Your task to perform on an android device: Clear the cart on newegg.com. Search for bose soundlink on newegg.com, select the first entry, add it to the cart, then select checkout. Image 0: 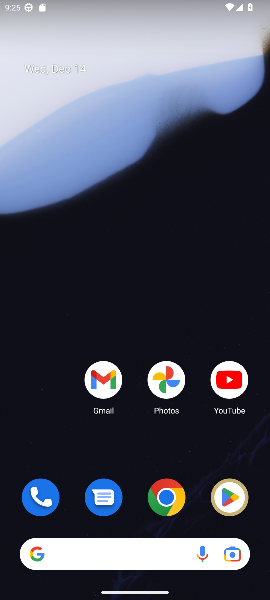
Step 0: click (166, 510)
Your task to perform on an android device: Clear the cart on newegg.com. Search for bose soundlink on newegg.com, select the first entry, add it to the cart, then select checkout. Image 1: 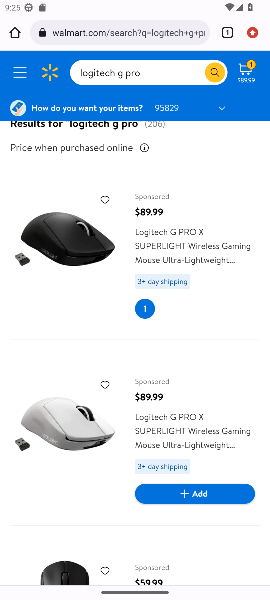
Step 1: click (91, 32)
Your task to perform on an android device: Clear the cart on newegg.com. Search for bose soundlink on newegg.com, select the first entry, add it to the cart, then select checkout. Image 2: 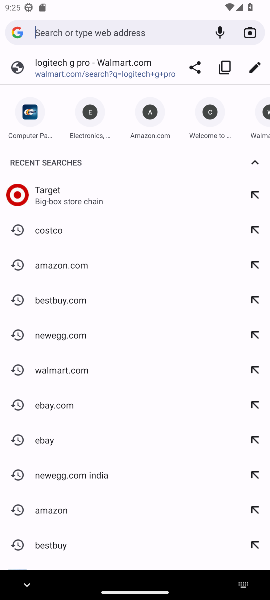
Step 2: type "newegg.com"
Your task to perform on an android device: Clear the cart on newegg.com. Search for bose soundlink on newegg.com, select the first entry, add it to the cart, then select checkout. Image 3: 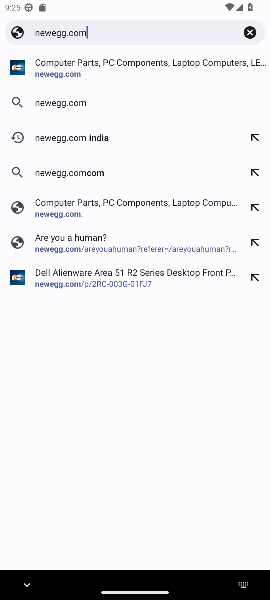
Step 3: press enter
Your task to perform on an android device: Clear the cart on newegg.com. Search for bose soundlink on newegg.com, select the first entry, add it to the cart, then select checkout. Image 4: 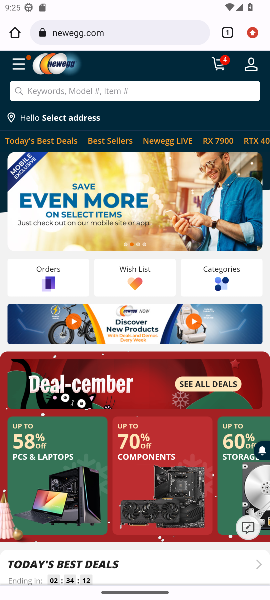
Step 4: click (221, 69)
Your task to perform on an android device: Clear the cart on newegg.com. Search for bose soundlink on newegg.com, select the first entry, add it to the cart, then select checkout. Image 5: 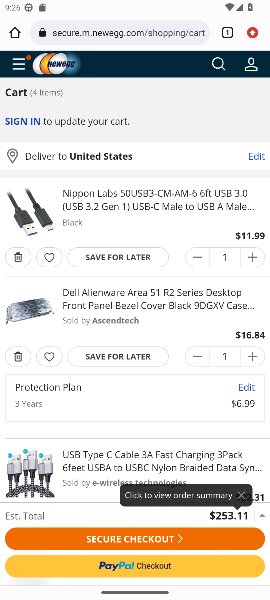
Step 5: click (200, 261)
Your task to perform on an android device: Clear the cart on newegg.com. Search for bose soundlink on newegg.com, select the first entry, add it to the cart, then select checkout. Image 6: 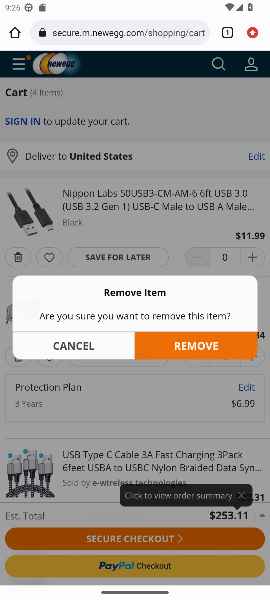
Step 6: click (199, 340)
Your task to perform on an android device: Clear the cart on newegg.com. Search for bose soundlink on newegg.com, select the first entry, add it to the cart, then select checkout. Image 7: 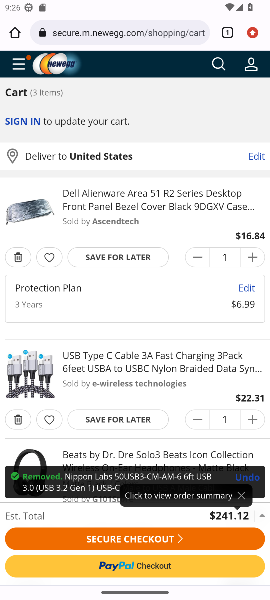
Step 7: click (196, 263)
Your task to perform on an android device: Clear the cart on newegg.com. Search for bose soundlink on newegg.com, select the first entry, add it to the cart, then select checkout. Image 8: 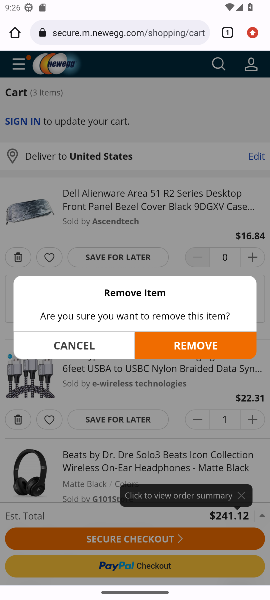
Step 8: click (192, 343)
Your task to perform on an android device: Clear the cart on newegg.com. Search for bose soundlink on newegg.com, select the first entry, add it to the cart, then select checkout. Image 9: 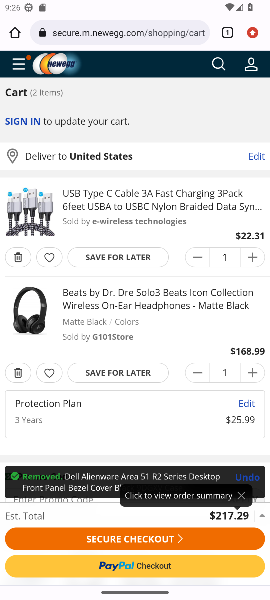
Step 9: click (200, 262)
Your task to perform on an android device: Clear the cart on newegg.com. Search for bose soundlink on newegg.com, select the first entry, add it to the cart, then select checkout. Image 10: 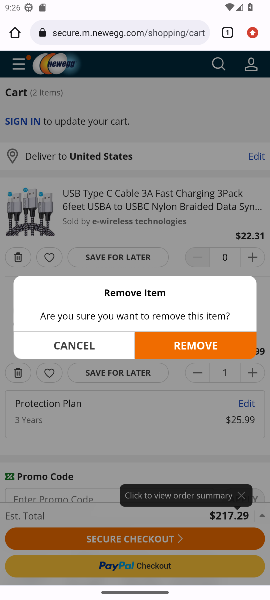
Step 10: click (200, 342)
Your task to perform on an android device: Clear the cart on newegg.com. Search for bose soundlink on newegg.com, select the first entry, add it to the cart, then select checkout. Image 11: 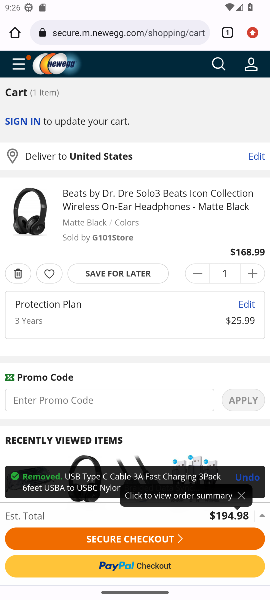
Step 11: click (198, 277)
Your task to perform on an android device: Clear the cart on newegg.com. Search for bose soundlink on newegg.com, select the first entry, add it to the cart, then select checkout. Image 12: 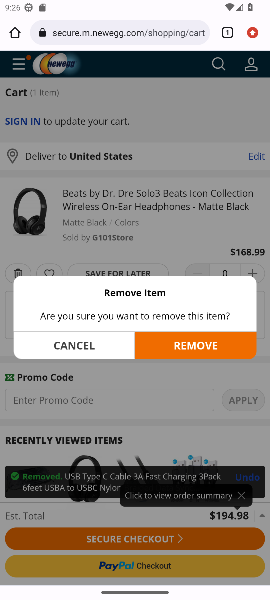
Step 12: click (179, 350)
Your task to perform on an android device: Clear the cart on newegg.com. Search for bose soundlink on newegg.com, select the first entry, add it to the cart, then select checkout. Image 13: 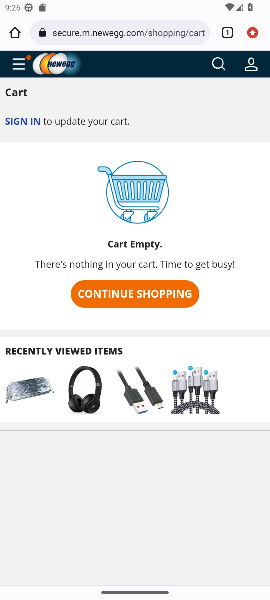
Step 13: click (212, 65)
Your task to perform on an android device: Clear the cart on newegg.com. Search for bose soundlink on newegg.com, select the first entry, add it to the cart, then select checkout. Image 14: 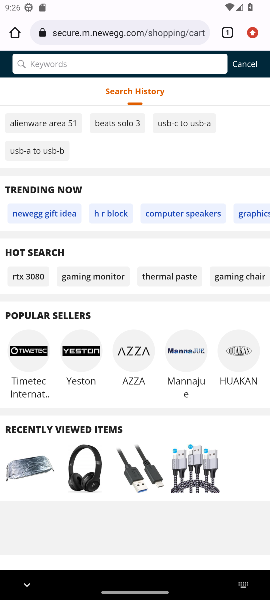
Step 14: click (148, 57)
Your task to perform on an android device: Clear the cart on newegg.com. Search for bose soundlink on newegg.com, select the first entry, add it to the cart, then select checkout. Image 15: 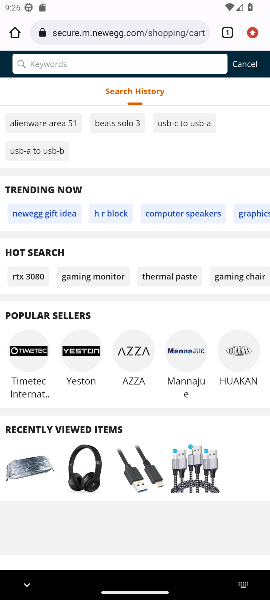
Step 15: type "bose soundlink"
Your task to perform on an android device: Clear the cart on newegg.com. Search for bose soundlink on newegg.com, select the first entry, add it to the cart, then select checkout. Image 16: 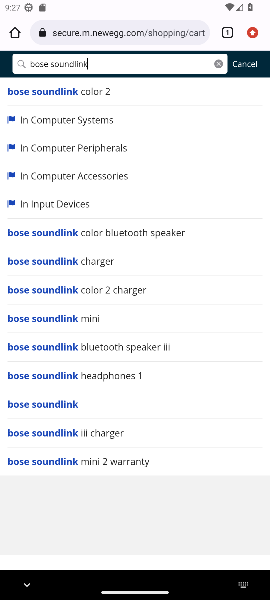
Step 16: press enter
Your task to perform on an android device: Clear the cart on newegg.com. Search for bose soundlink on newegg.com, select the first entry, add it to the cart, then select checkout. Image 17: 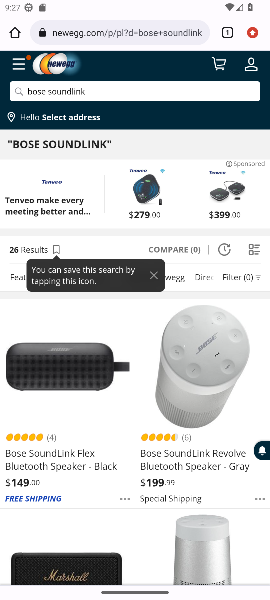
Step 17: click (52, 382)
Your task to perform on an android device: Clear the cart on newegg.com. Search for bose soundlink on newegg.com, select the first entry, add it to the cart, then select checkout. Image 18: 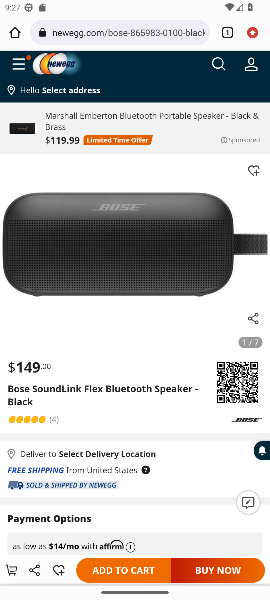
Step 18: click (129, 571)
Your task to perform on an android device: Clear the cart on newegg.com. Search for bose soundlink on newegg.com, select the first entry, add it to the cart, then select checkout. Image 19: 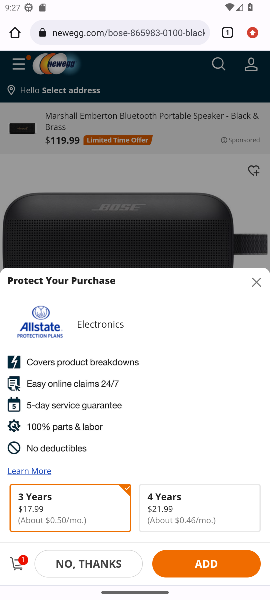
Step 19: click (200, 565)
Your task to perform on an android device: Clear the cart on newegg.com. Search for bose soundlink on newegg.com, select the first entry, add it to the cart, then select checkout. Image 20: 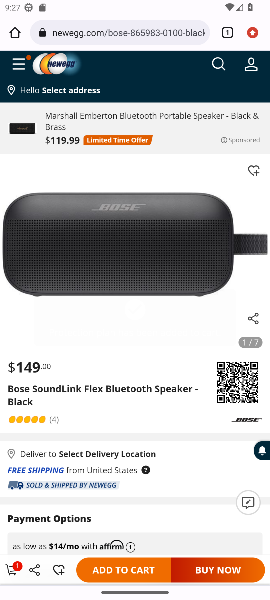
Step 20: click (12, 576)
Your task to perform on an android device: Clear the cart on newegg.com. Search for bose soundlink on newegg.com, select the first entry, add it to the cart, then select checkout. Image 21: 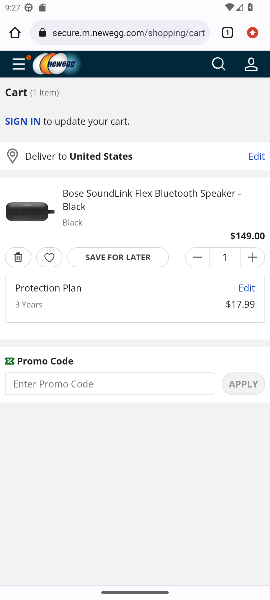
Step 21: click (120, 452)
Your task to perform on an android device: Clear the cart on newegg.com. Search for bose soundlink on newegg.com, select the first entry, add it to the cart, then select checkout. Image 22: 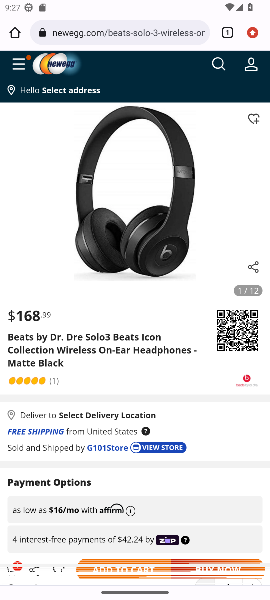
Step 22: drag from (217, 461) to (200, 297)
Your task to perform on an android device: Clear the cart on newegg.com. Search for bose soundlink on newegg.com, select the first entry, add it to the cart, then select checkout. Image 23: 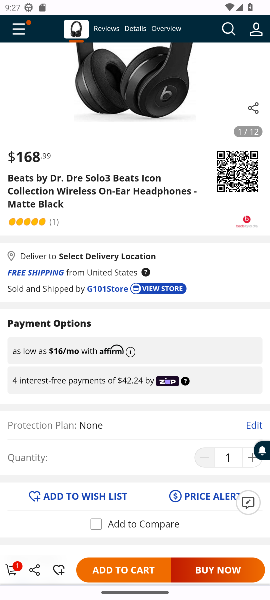
Step 23: click (94, 575)
Your task to perform on an android device: Clear the cart on newegg.com. Search for bose soundlink on newegg.com, select the first entry, add it to the cart, then select checkout. Image 24: 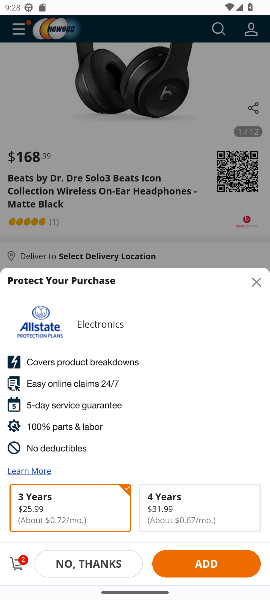
Step 24: click (201, 566)
Your task to perform on an android device: Clear the cart on newegg.com. Search for bose soundlink on newegg.com, select the first entry, add it to the cart, then select checkout. Image 25: 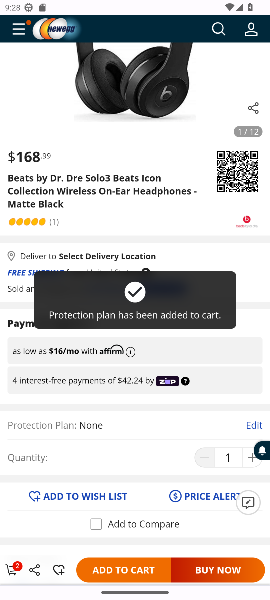
Step 25: click (13, 569)
Your task to perform on an android device: Clear the cart on newegg.com. Search for bose soundlink on newegg.com, select the first entry, add it to the cart, then select checkout. Image 26: 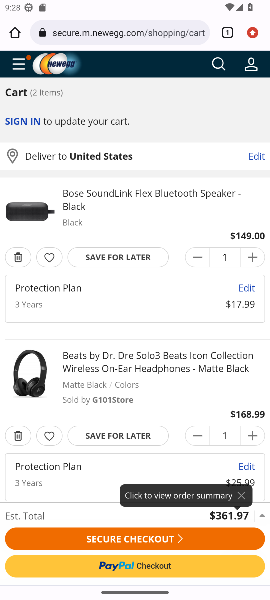
Step 26: click (85, 538)
Your task to perform on an android device: Clear the cart on newegg.com. Search for bose soundlink on newegg.com, select the first entry, add it to the cart, then select checkout. Image 27: 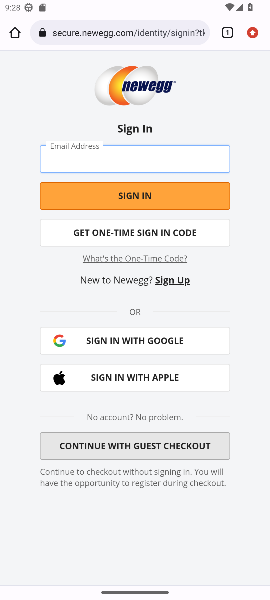
Step 27: task complete